Your task to perform on an android device: Search for good pizza restaurants on Maps Image 0: 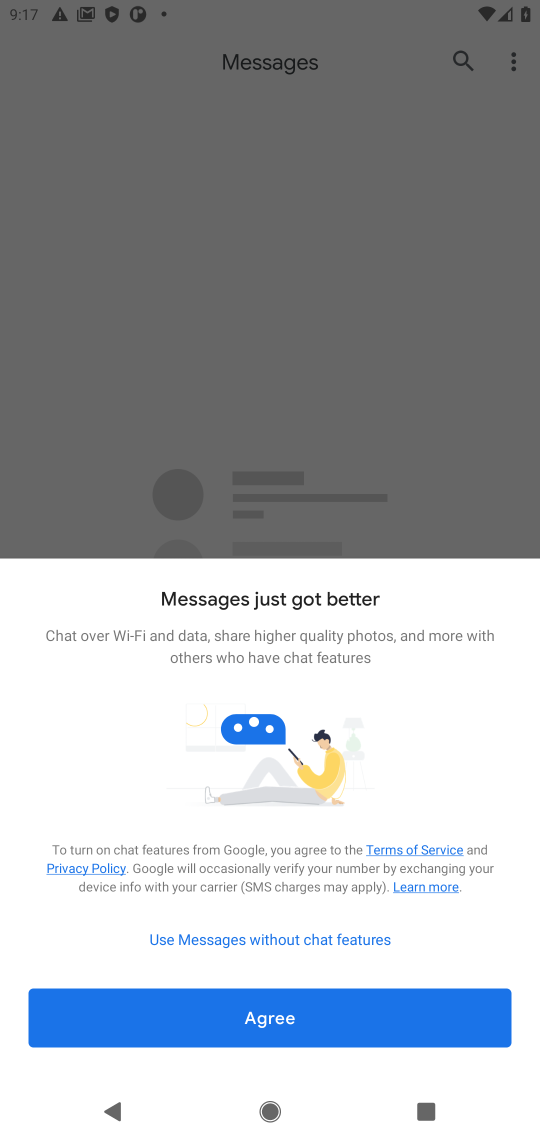
Step 0: press home button
Your task to perform on an android device: Search for good pizza restaurants on Maps Image 1: 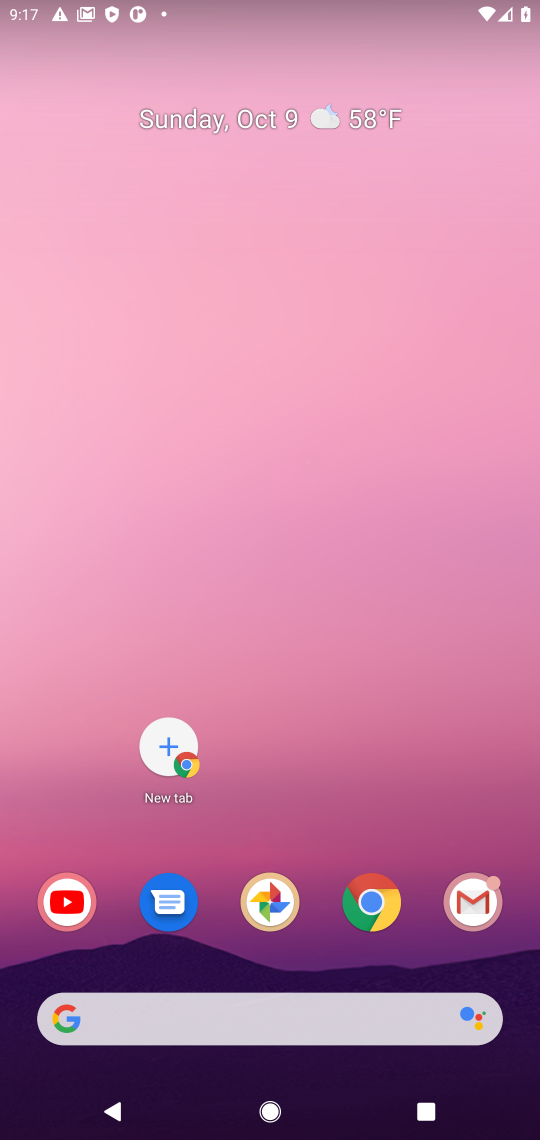
Step 1: drag from (334, 851) to (294, 253)
Your task to perform on an android device: Search for good pizza restaurants on Maps Image 2: 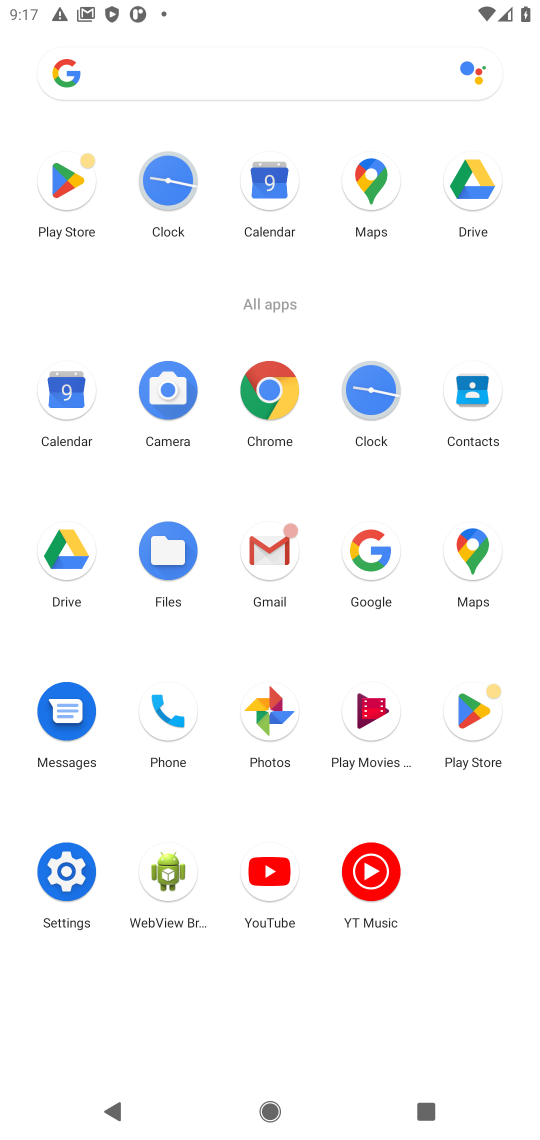
Step 2: click (480, 574)
Your task to perform on an android device: Search for good pizza restaurants on Maps Image 3: 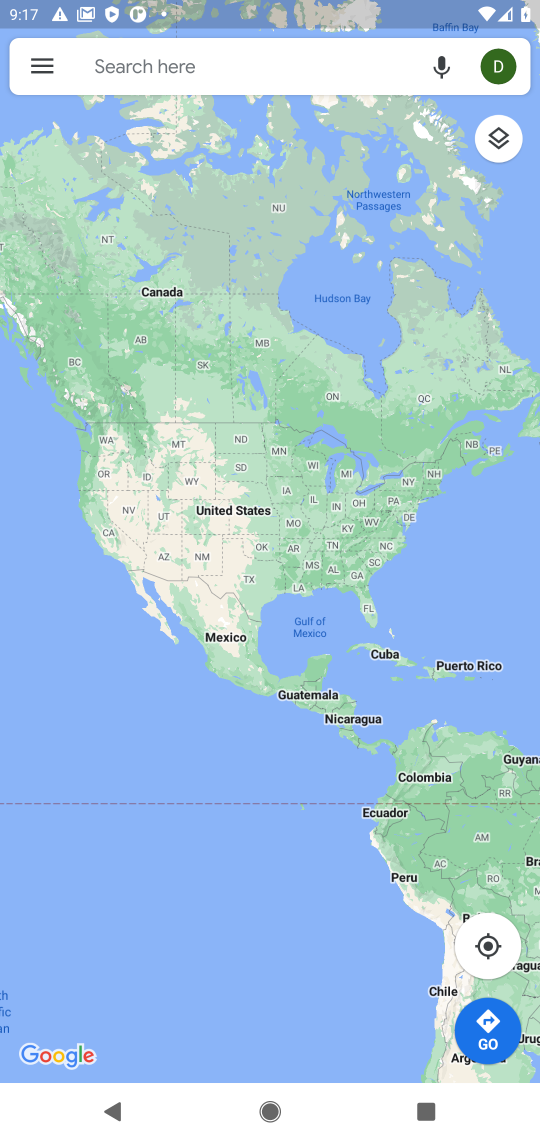
Step 3: click (216, 53)
Your task to perform on an android device: Search for good pizza restaurants on Maps Image 4: 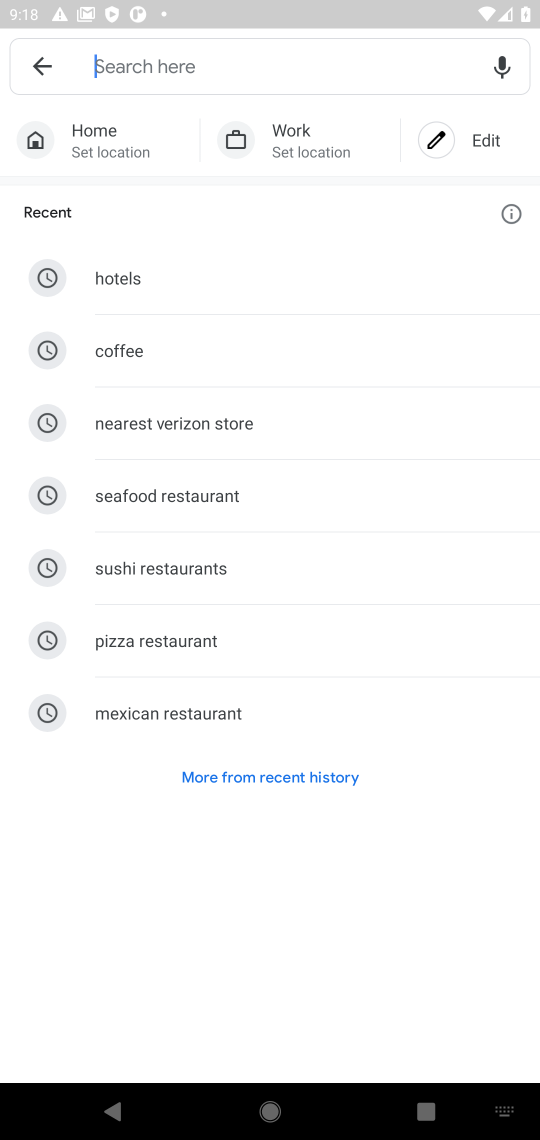
Step 4: type "good pizza restaurants"
Your task to perform on an android device: Search for good pizza restaurants on Maps Image 5: 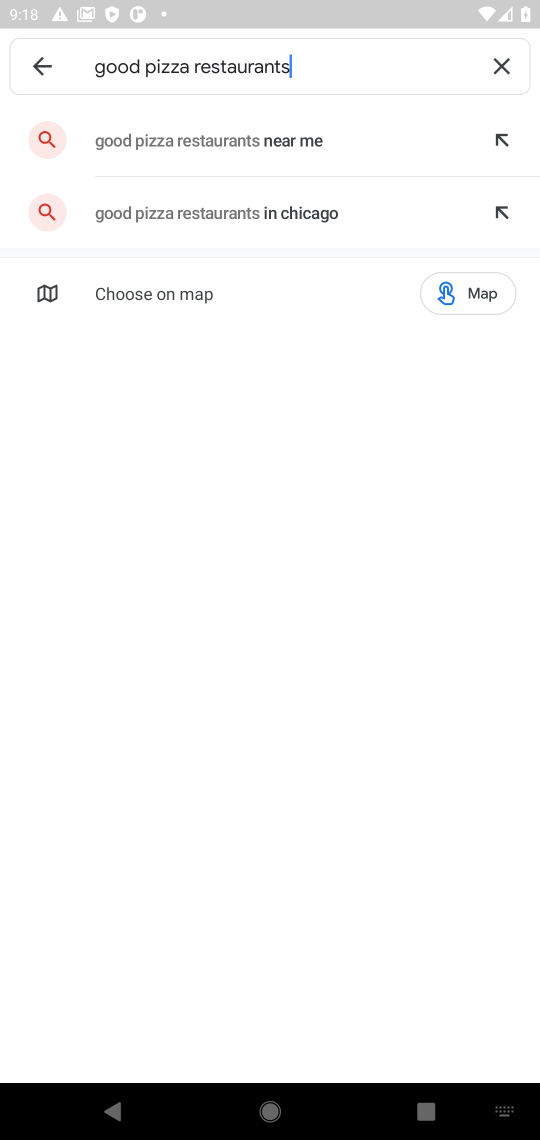
Step 5: type ""
Your task to perform on an android device: Search for good pizza restaurants on Maps Image 6: 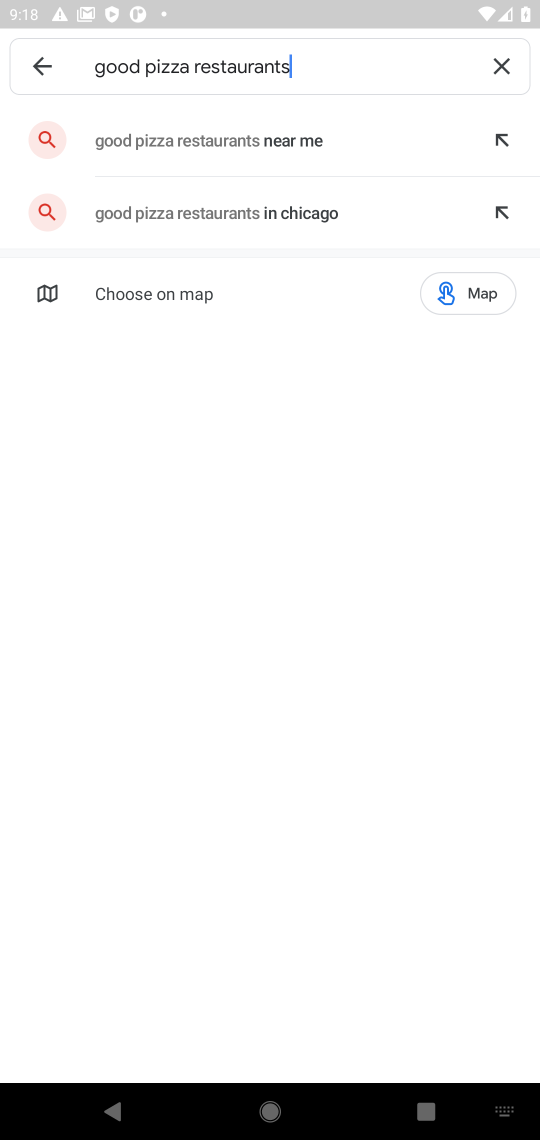
Step 6: click (255, 143)
Your task to perform on an android device: Search for good pizza restaurants on Maps Image 7: 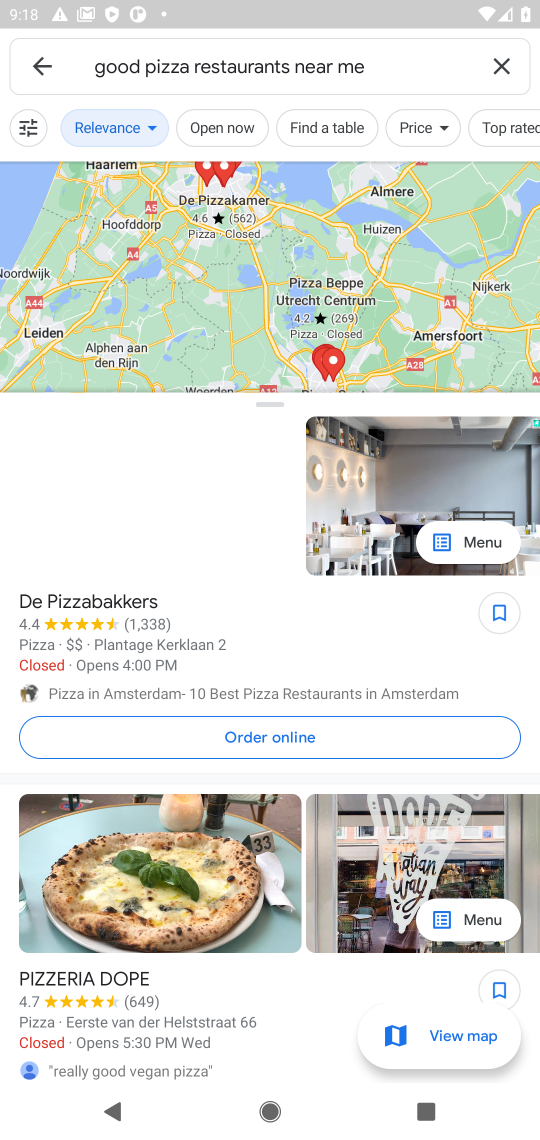
Step 7: task complete